Your task to perform on an android device: toggle notification dots Image 0: 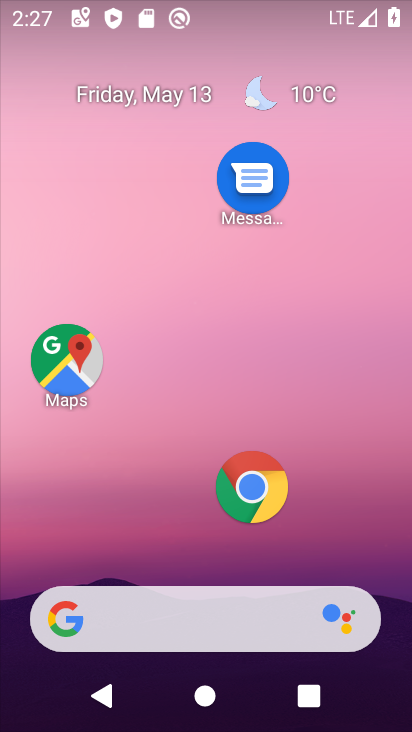
Step 0: drag from (180, 508) to (221, 249)
Your task to perform on an android device: toggle notification dots Image 1: 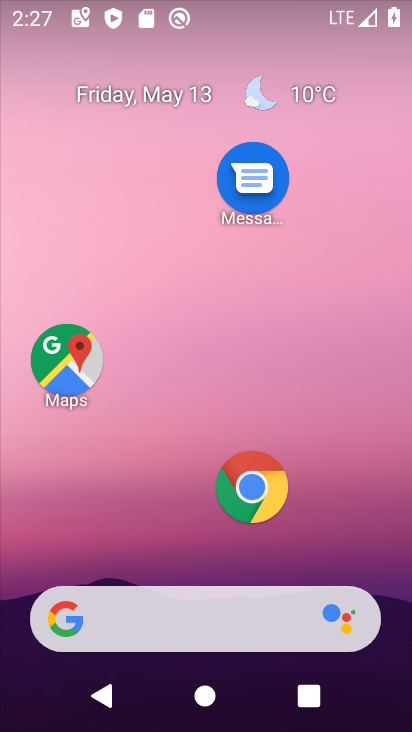
Step 1: drag from (136, 513) to (156, 228)
Your task to perform on an android device: toggle notification dots Image 2: 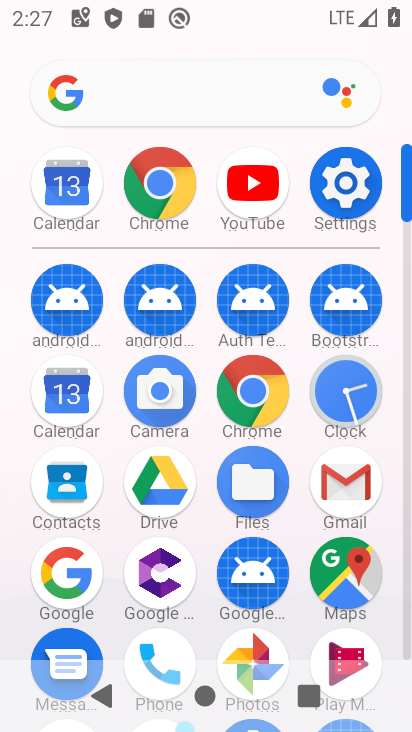
Step 2: click (350, 187)
Your task to perform on an android device: toggle notification dots Image 3: 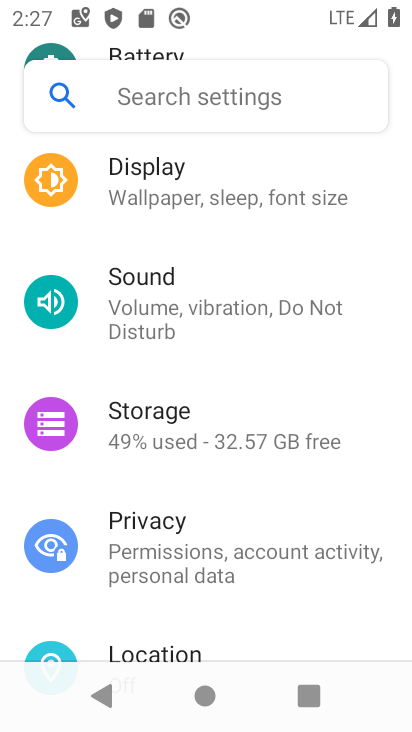
Step 3: click (218, 575)
Your task to perform on an android device: toggle notification dots Image 4: 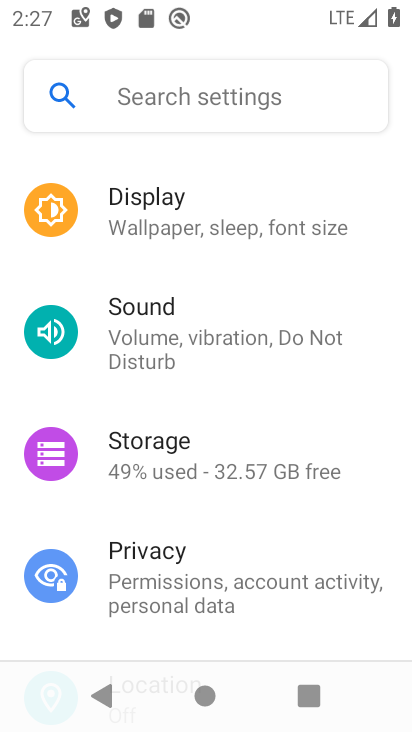
Step 4: drag from (242, 193) to (215, 540)
Your task to perform on an android device: toggle notification dots Image 5: 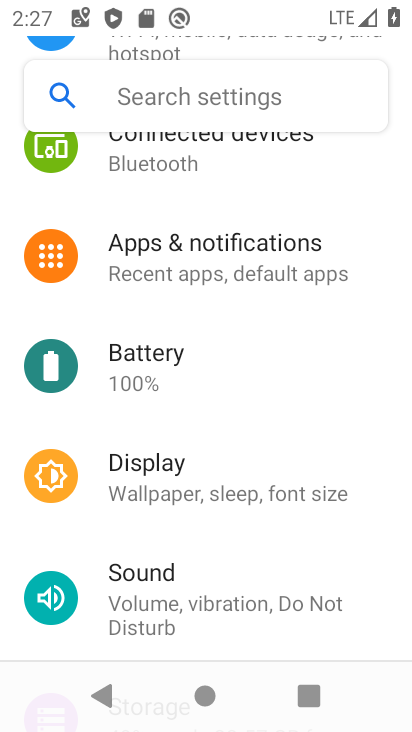
Step 5: click (206, 268)
Your task to perform on an android device: toggle notification dots Image 6: 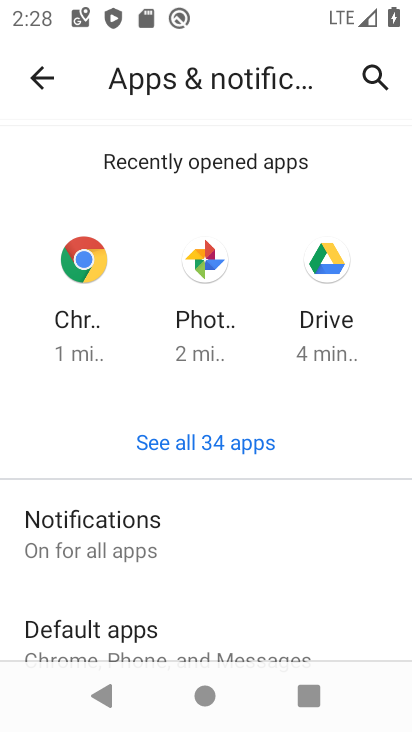
Step 6: click (115, 529)
Your task to perform on an android device: toggle notification dots Image 7: 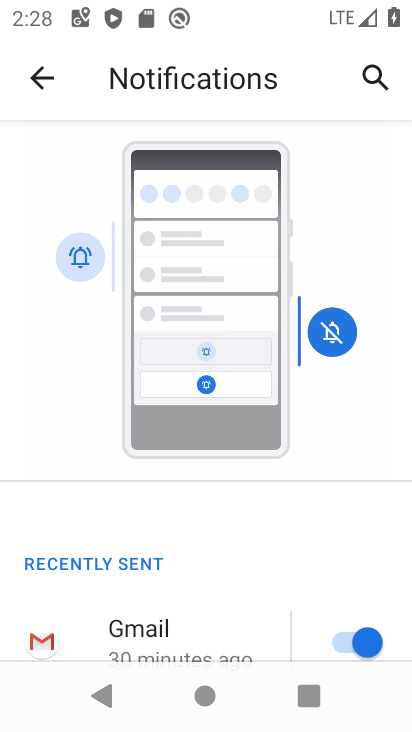
Step 7: drag from (195, 576) to (264, 207)
Your task to perform on an android device: toggle notification dots Image 8: 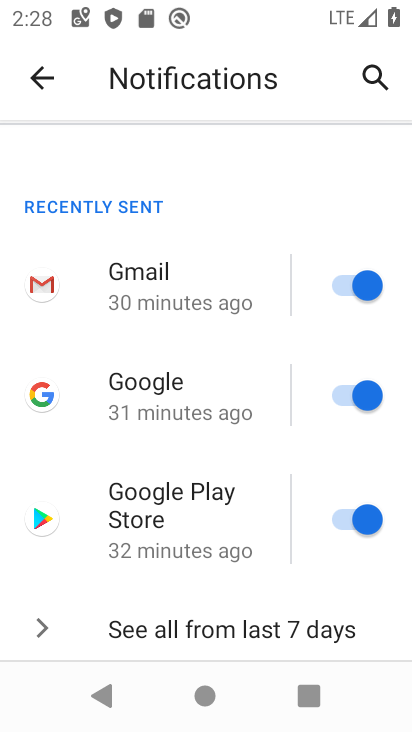
Step 8: drag from (208, 518) to (272, 149)
Your task to perform on an android device: toggle notification dots Image 9: 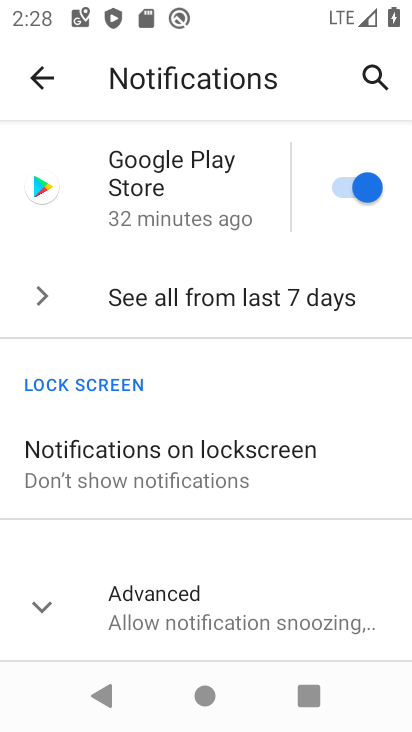
Step 9: drag from (174, 568) to (268, 290)
Your task to perform on an android device: toggle notification dots Image 10: 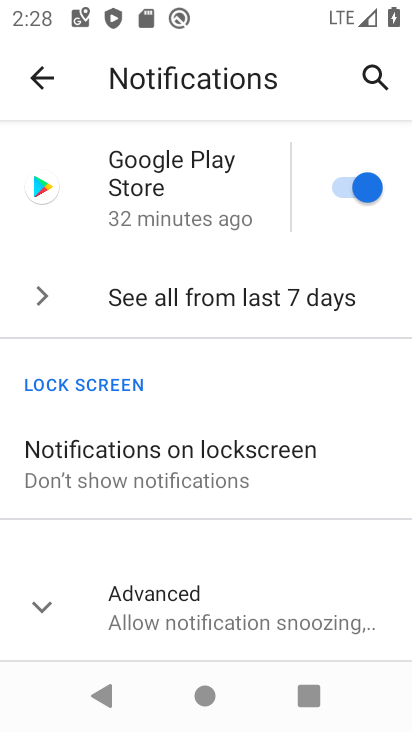
Step 10: click (48, 603)
Your task to perform on an android device: toggle notification dots Image 11: 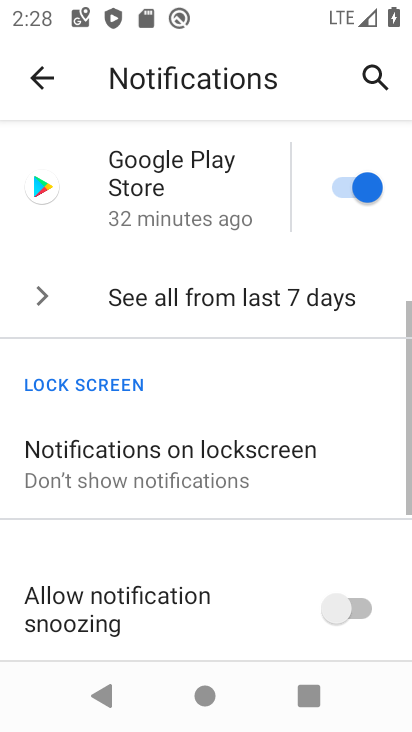
Step 11: drag from (247, 576) to (306, 259)
Your task to perform on an android device: toggle notification dots Image 12: 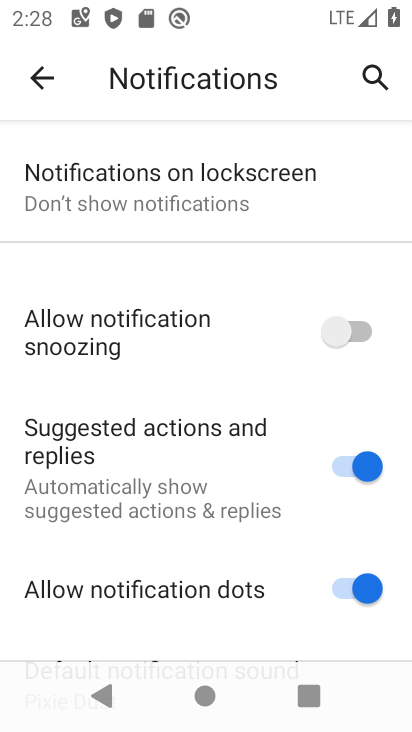
Step 12: click (336, 584)
Your task to perform on an android device: toggle notification dots Image 13: 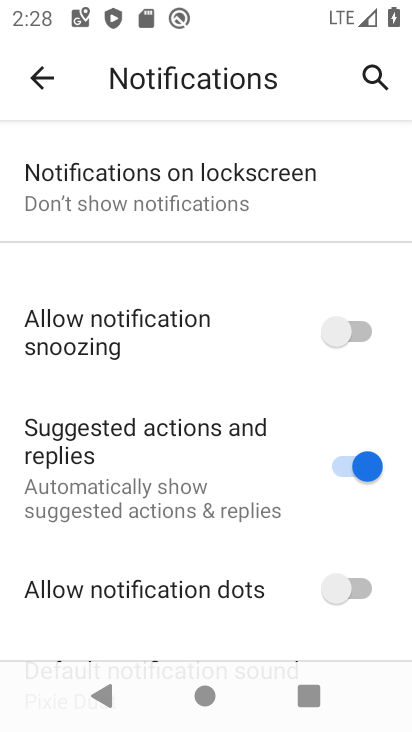
Step 13: task complete